Your task to perform on an android device: empty trash in google photos Image 0: 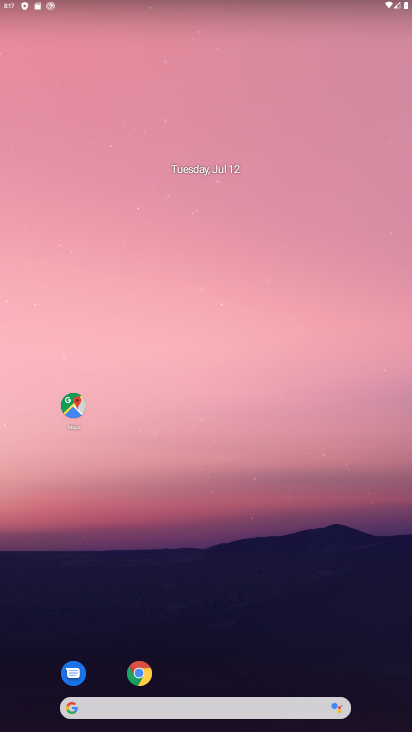
Step 0: drag from (273, 630) to (224, 88)
Your task to perform on an android device: empty trash in google photos Image 1: 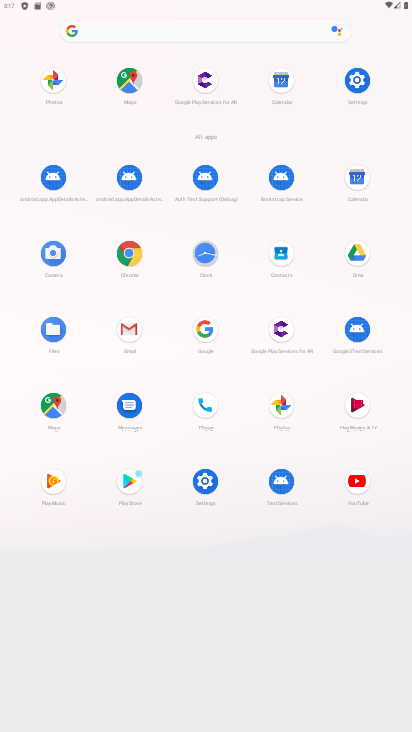
Step 1: click (133, 319)
Your task to perform on an android device: empty trash in google photos Image 2: 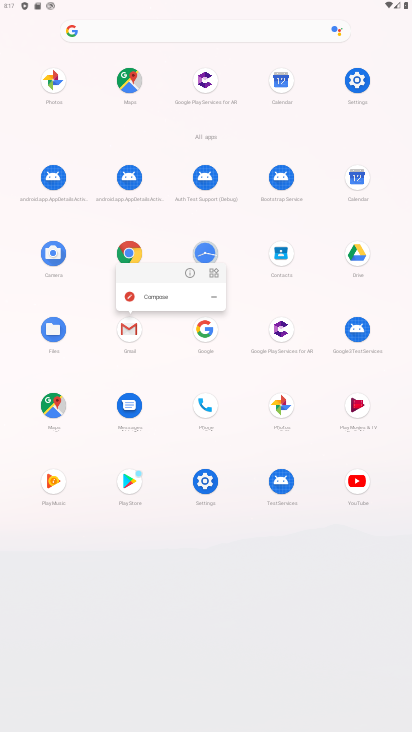
Step 2: click (275, 396)
Your task to perform on an android device: empty trash in google photos Image 3: 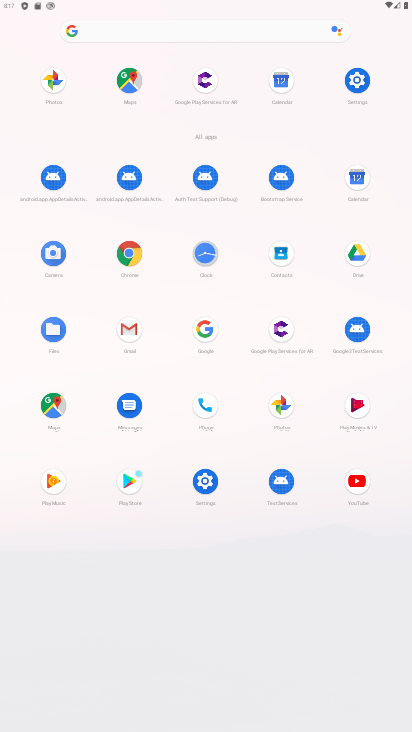
Step 3: click (283, 402)
Your task to perform on an android device: empty trash in google photos Image 4: 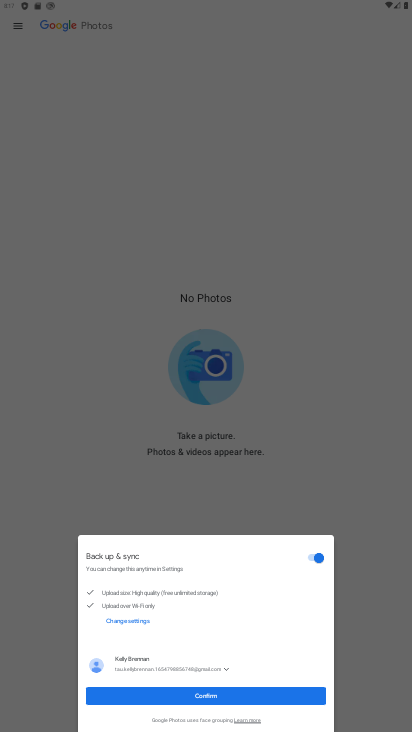
Step 4: click (161, 693)
Your task to perform on an android device: empty trash in google photos Image 5: 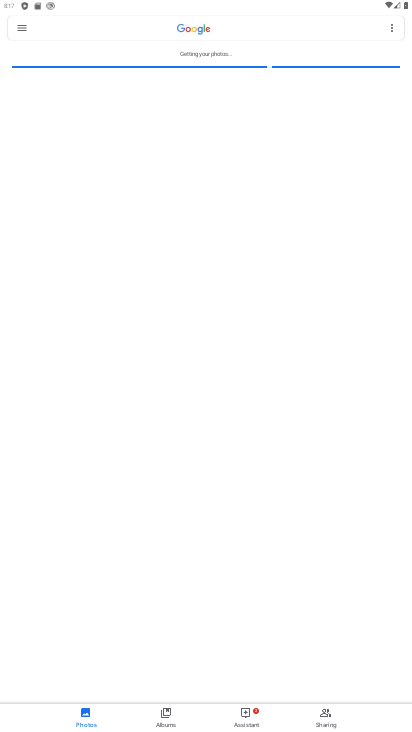
Step 5: click (23, 29)
Your task to perform on an android device: empty trash in google photos Image 6: 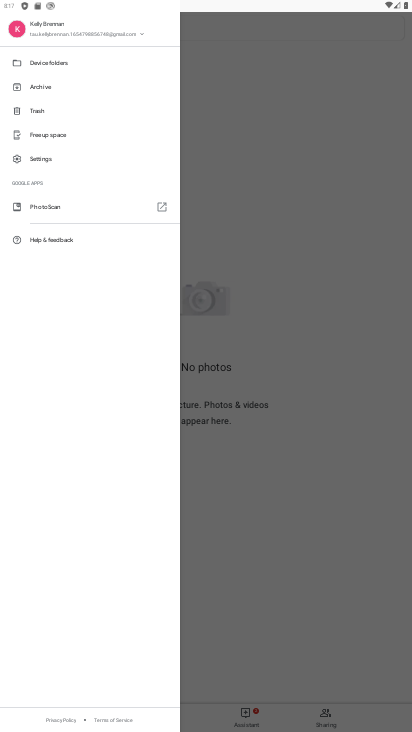
Step 6: click (33, 109)
Your task to perform on an android device: empty trash in google photos Image 7: 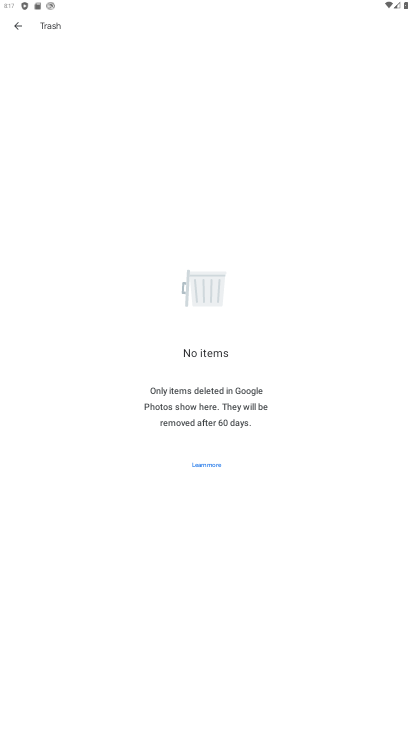
Step 7: task complete